Your task to perform on an android device: change the clock display to analog Image 0: 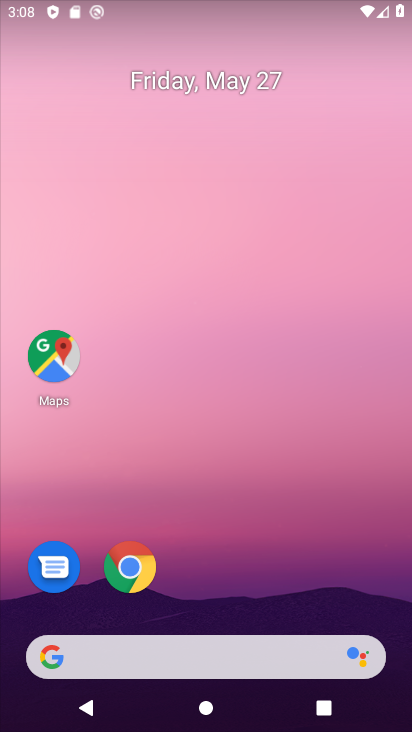
Step 0: drag from (309, 572) to (254, 100)
Your task to perform on an android device: change the clock display to analog Image 1: 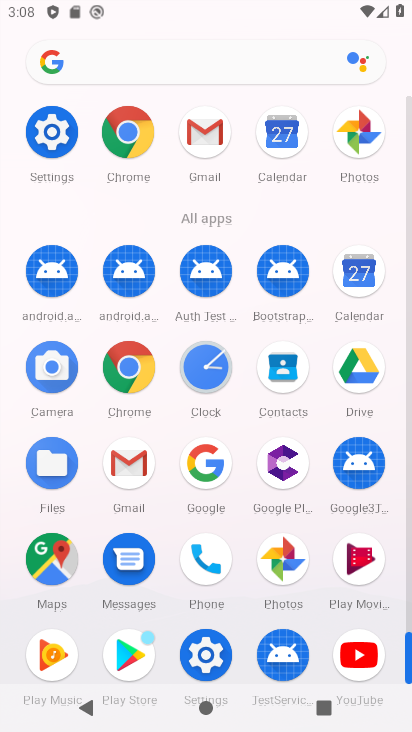
Step 1: click (203, 365)
Your task to perform on an android device: change the clock display to analog Image 2: 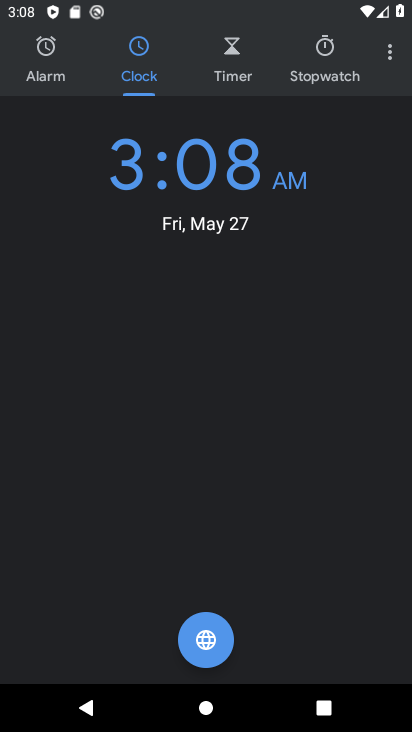
Step 2: click (388, 53)
Your task to perform on an android device: change the clock display to analog Image 3: 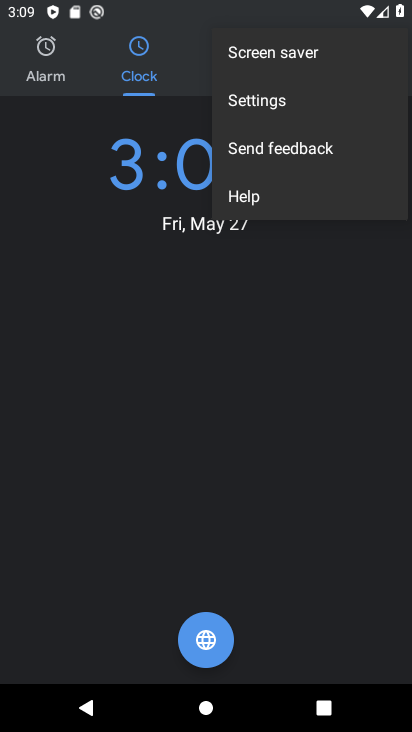
Step 3: click (269, 97)
Your task to perform on an android device: change the clock display to analog Image 4: 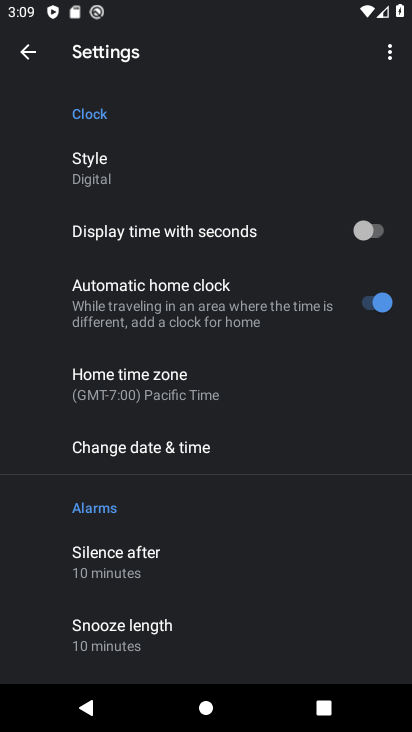
Step 4: click (102, 164)
Your task to perform on an android device: change the clock display to analog Image 5: 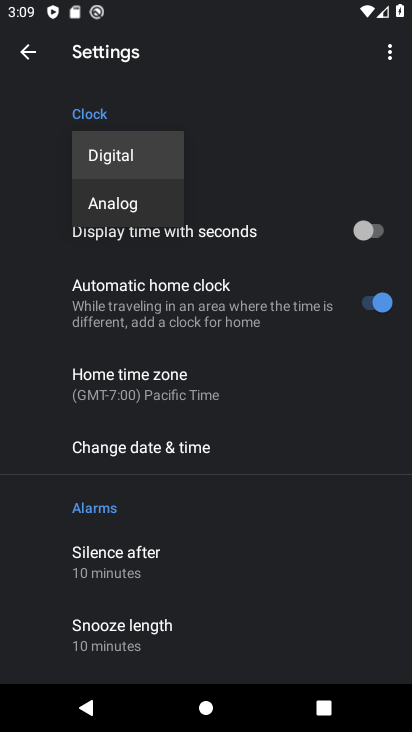
Step 5: click (105, 204)
Your task to perform on an android device: change the clock display to analog Image 6: 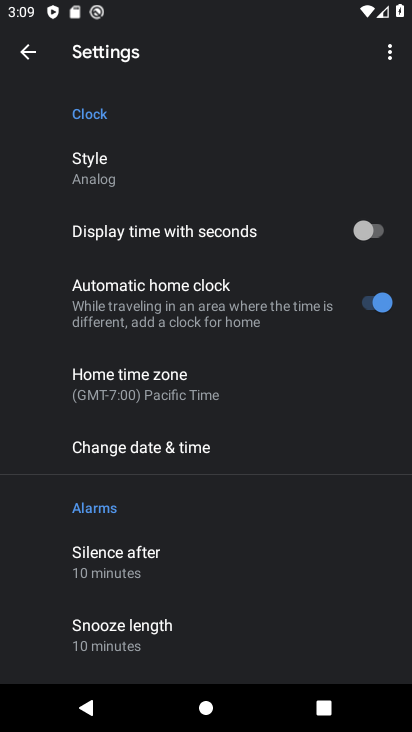
Step 6: task complete